Your task to perform on an android device: turn on airplane mode Image 0: 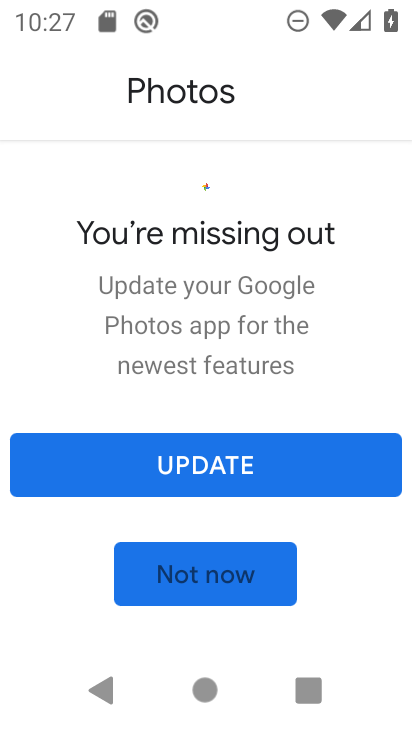
Step 0: press home button
Your task to perform on an android device: turn on airplane mode Image 1: 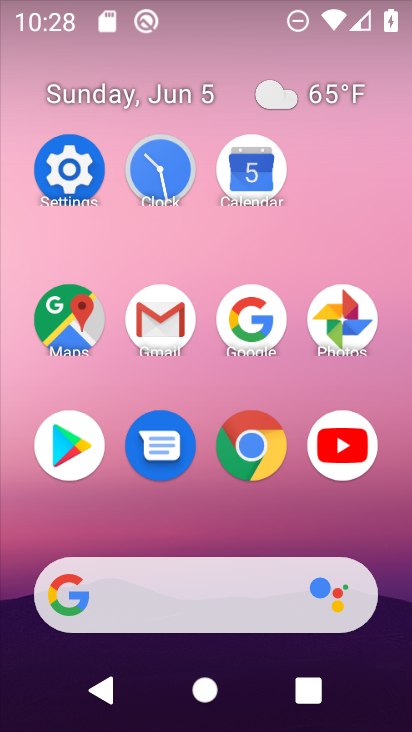
Step 1: click (89, 165)
Your task to perform on an android device: turn on airplane mode Image 2: 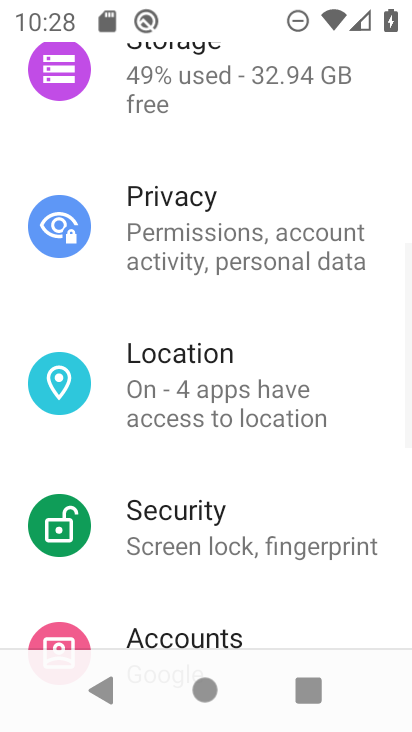
Step 2: drag from (299, 148) to (313, 671)
Your task to perform on an android device: turn on airplane mode Image 3: 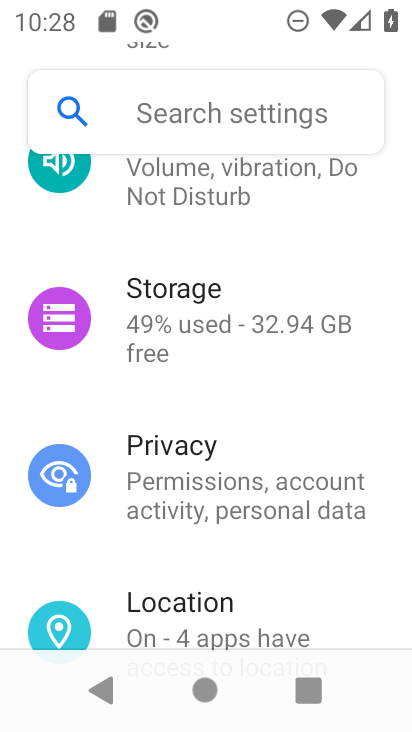
Step 3: drag from (309, 210) to (306, 620)
Your task to perform on an android device: turn on airplane mode Image 4: 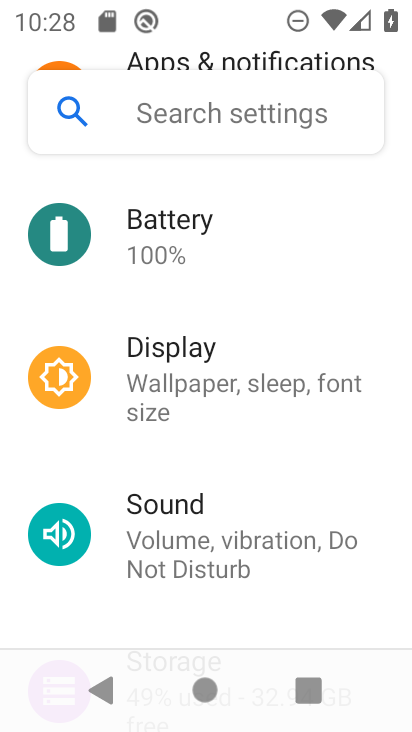
Step 4: drag from (284, 192) to (292, 633)
Your task to perform on an android device: turn on airplane mode Image 5: 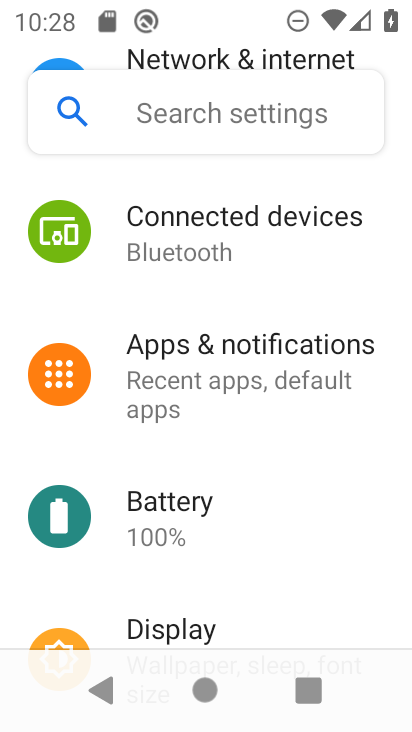
Step 5: drag from (284, 207) to (305, 569)
Your task to perform on an android device: turn on airplane mode Image 6: 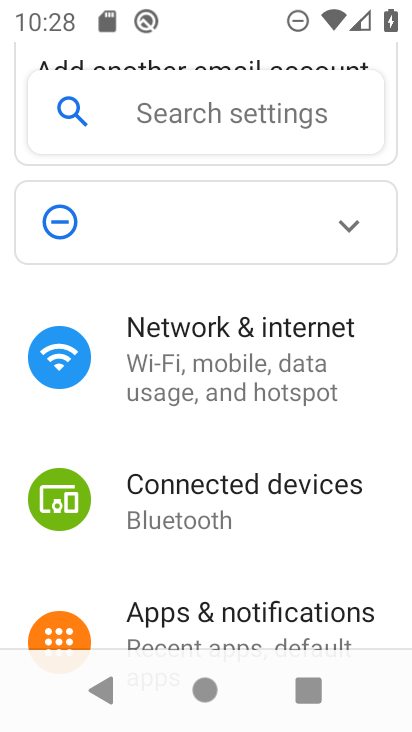
Step 6: click (295, 357)
Your task to perform on an android device: turn on airplane mode Image 7: 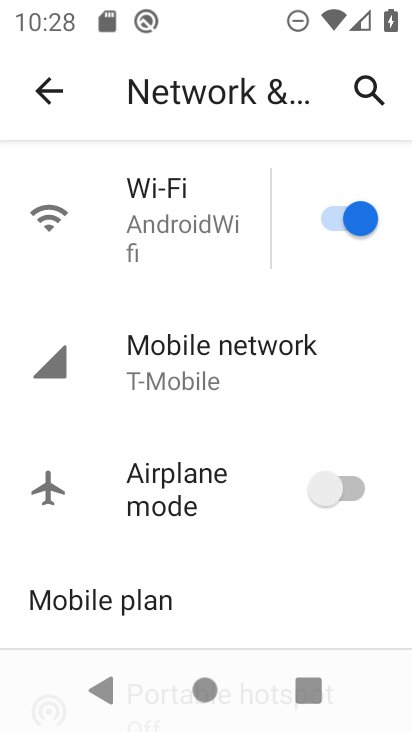
Step 7: click (331, 487)
Your task to perform on an android device: turn on airplane mode Image 8: 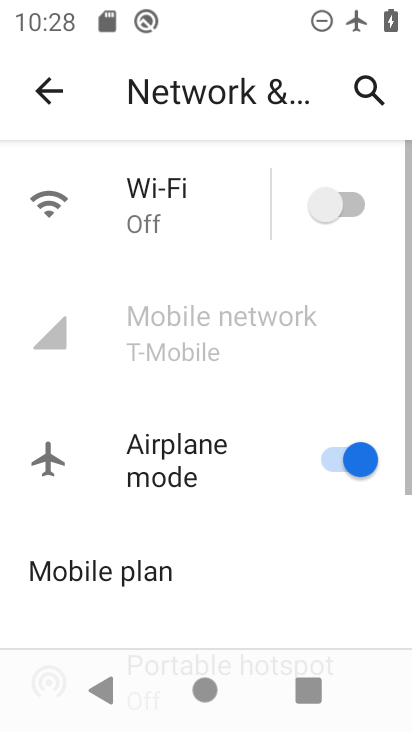
Step 8: task complete